Your task to perform on an android device: Show the shopping cart on amazon.com. Add "sony triple a" to the cart on amazon.com Image 0: 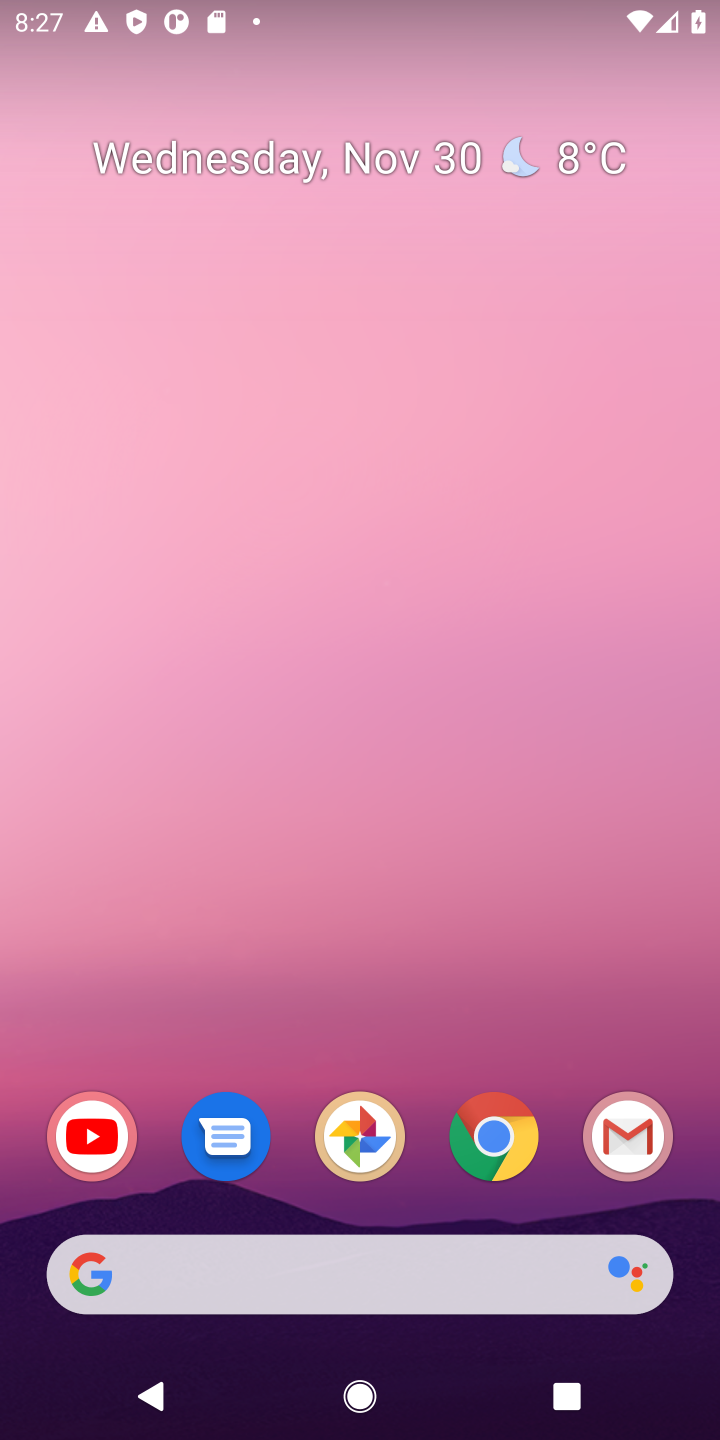
Step 0: click (505, 1156)
Your task to perform on an android device: Show the shopping cart on amazon.com. Add "sony triple a" to the cart on amazon.com Image 1: 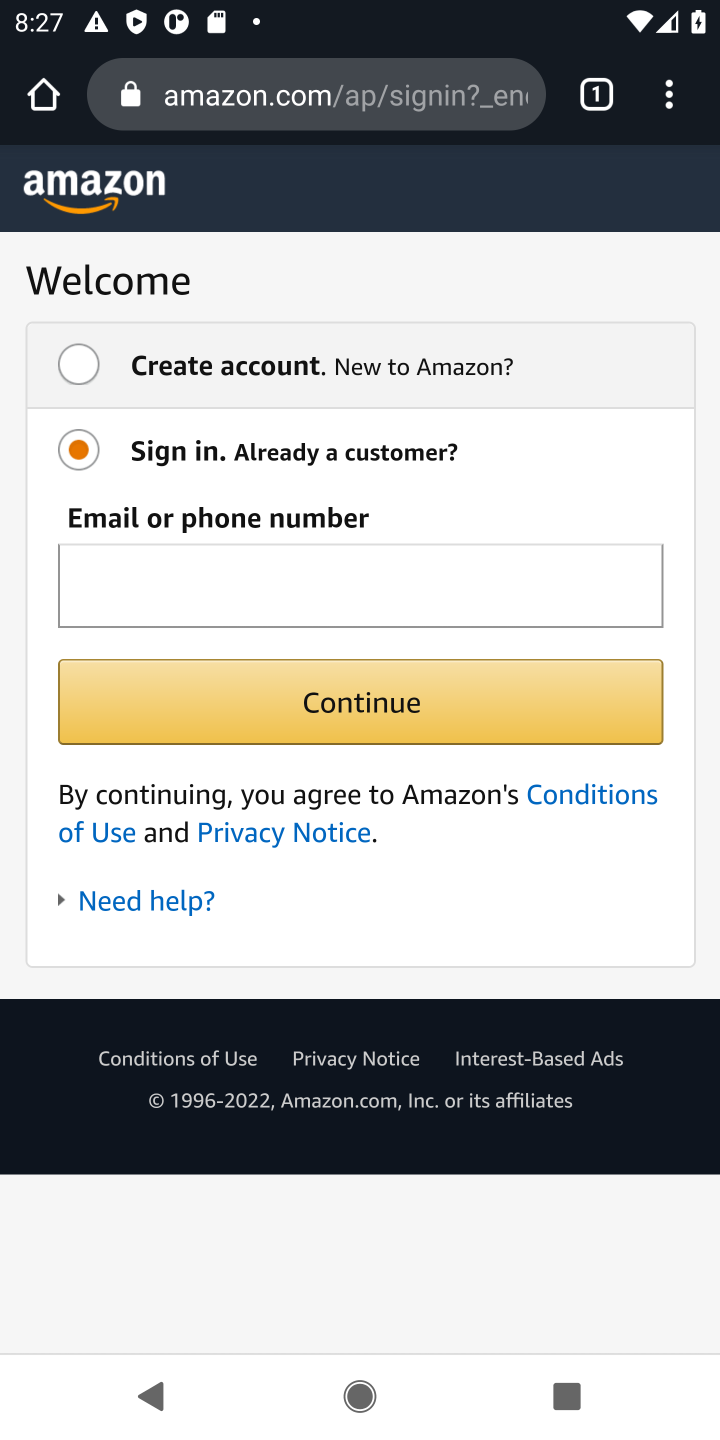
Step 1: press back button
Your task to perform on an android device: Show the shopping cart on amazon.com. Add "sony triple a" to the cart on amazon.com Image 2: 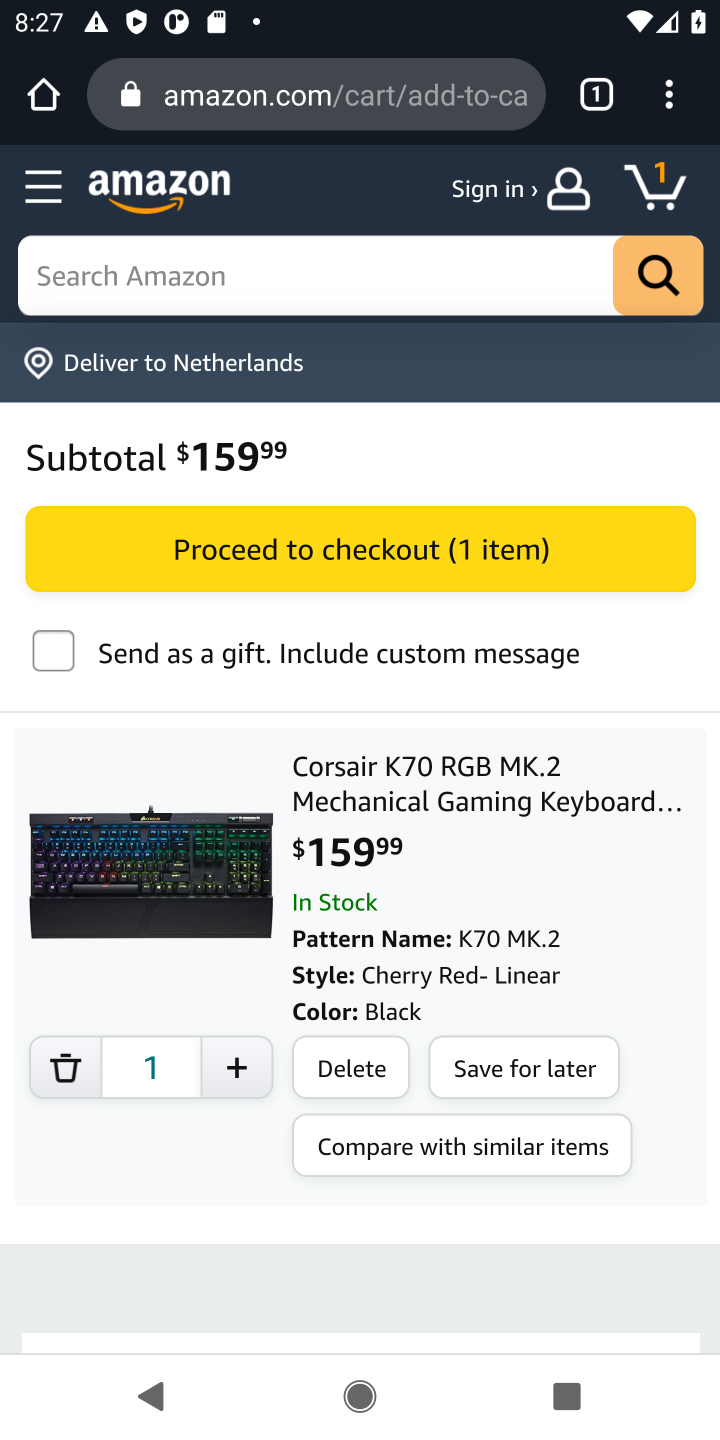
Step 2: drag from (644, 999) to (647, 591)
Your task to perform on an android device: Show the shopping cart on amazon.com. Add "sony triple a" to the cart on amazon.com Image 3: 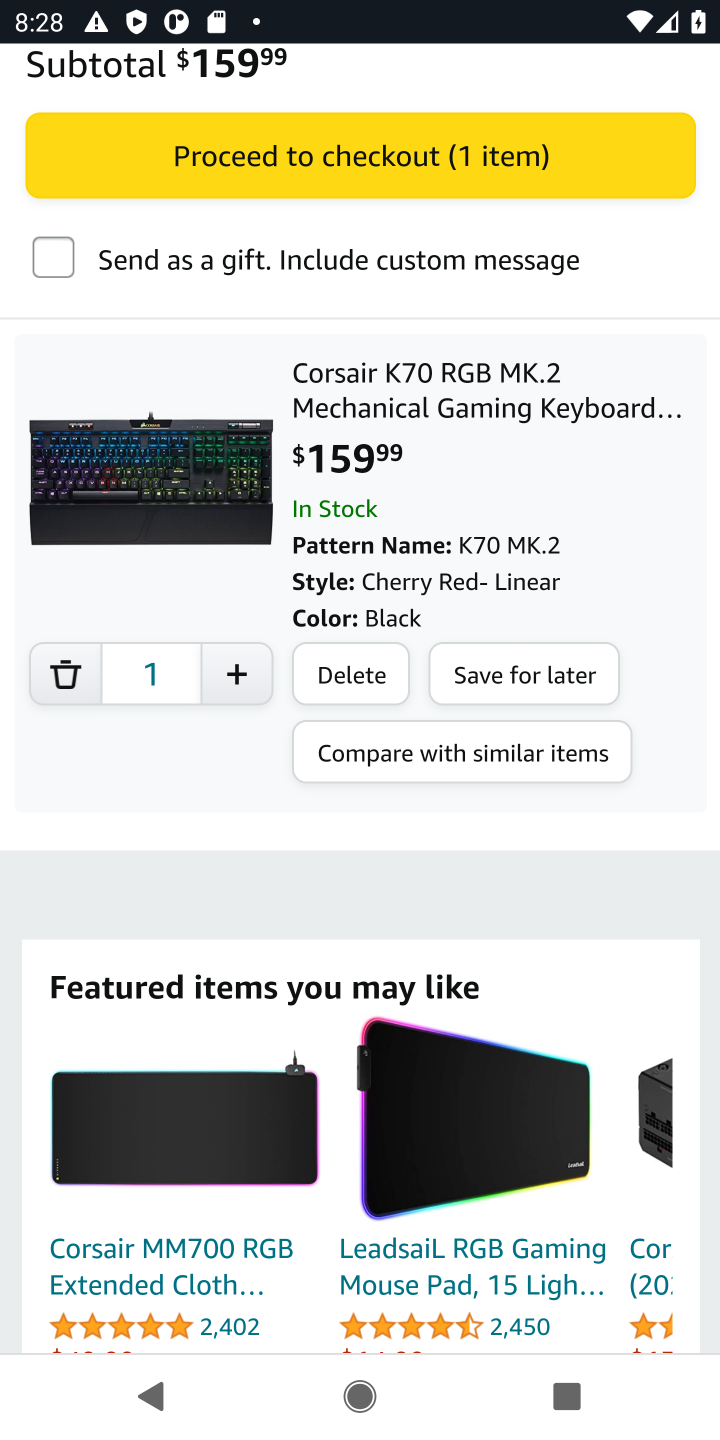
Step 3: drag from (522, 322) to (496, 791)
Your task to perform on an android device: Show the shopping cart on amazon.com. Add "sony triple a" to the cart on amazon.com Image 4: 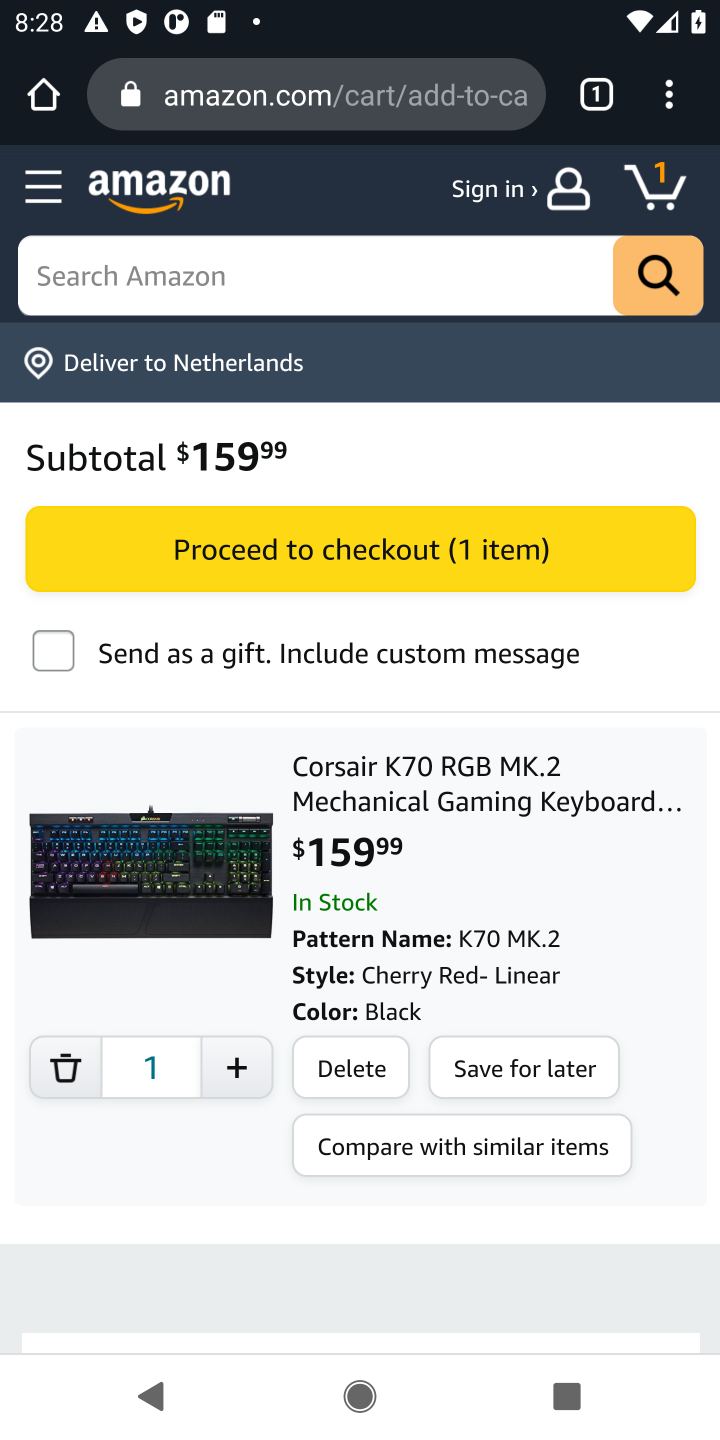
Step 4: click (124, 288)
Your task to perform on an android device: Show the shopping cart on amazon.com. Add "sony triple a" to the cart on amazon.com Image 5: 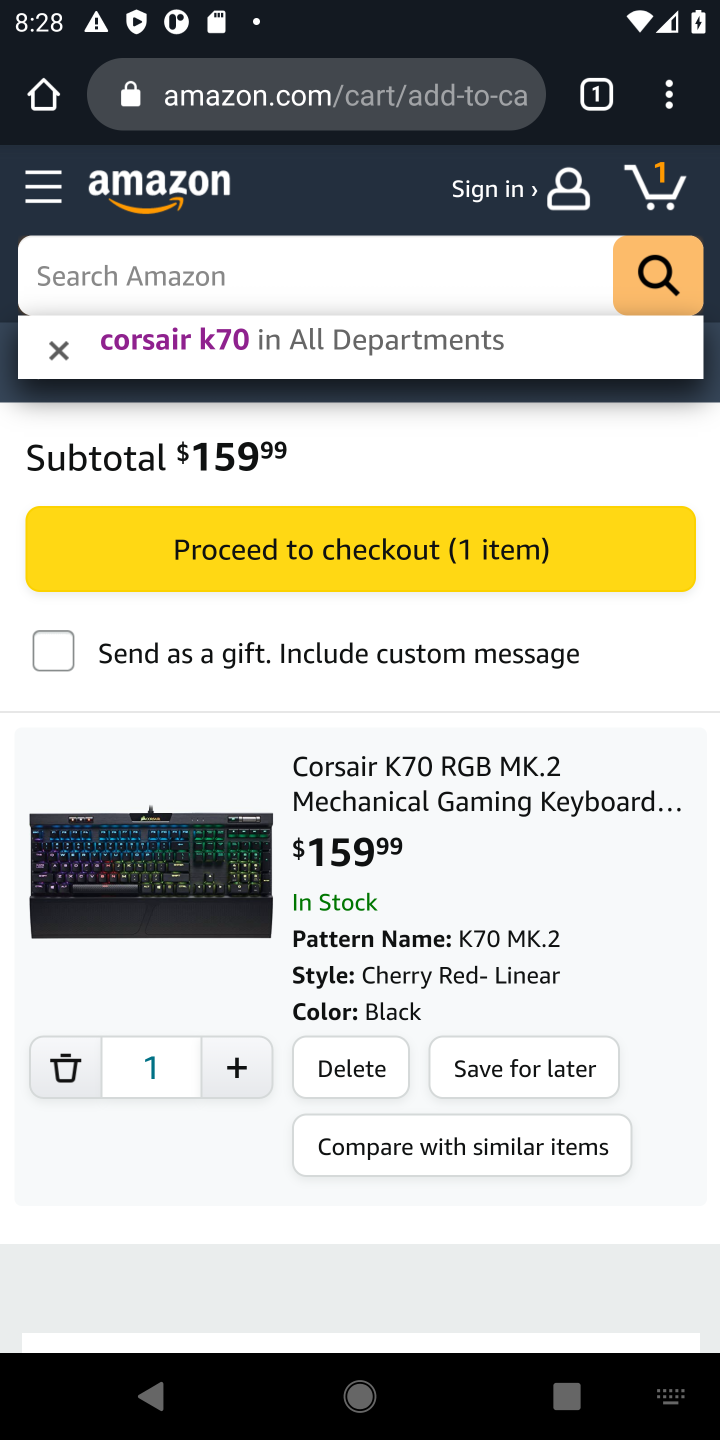
Step 5: type "sony triple a"
Your task to perform on an android device: Show the shopping cart on amazon.com. Add "sony triple a" to the cart on amazon.com Image 6: 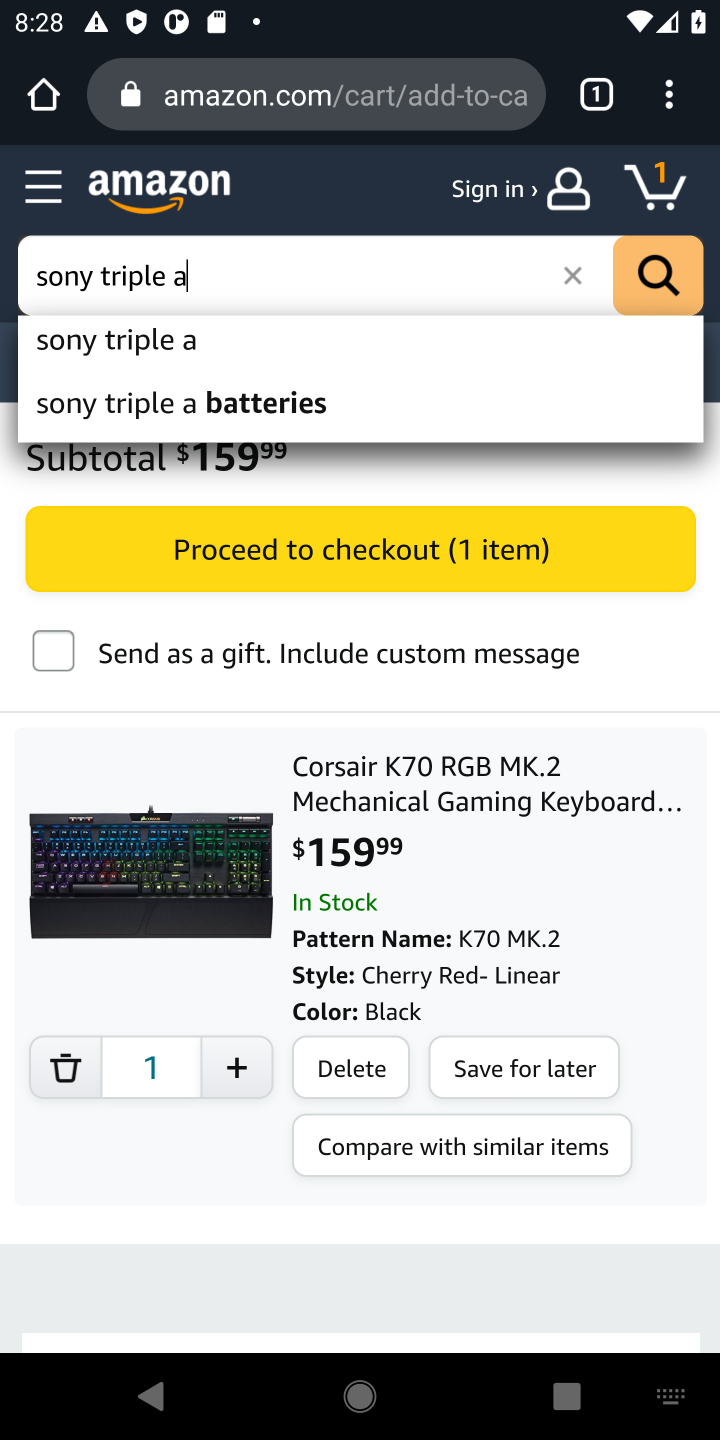
Step 6: click (64, 350)
Your task to perform on an android device: Show the shopping cart on amazon.com. Add "sony triple a" to the cart on amazon.com Image 7: 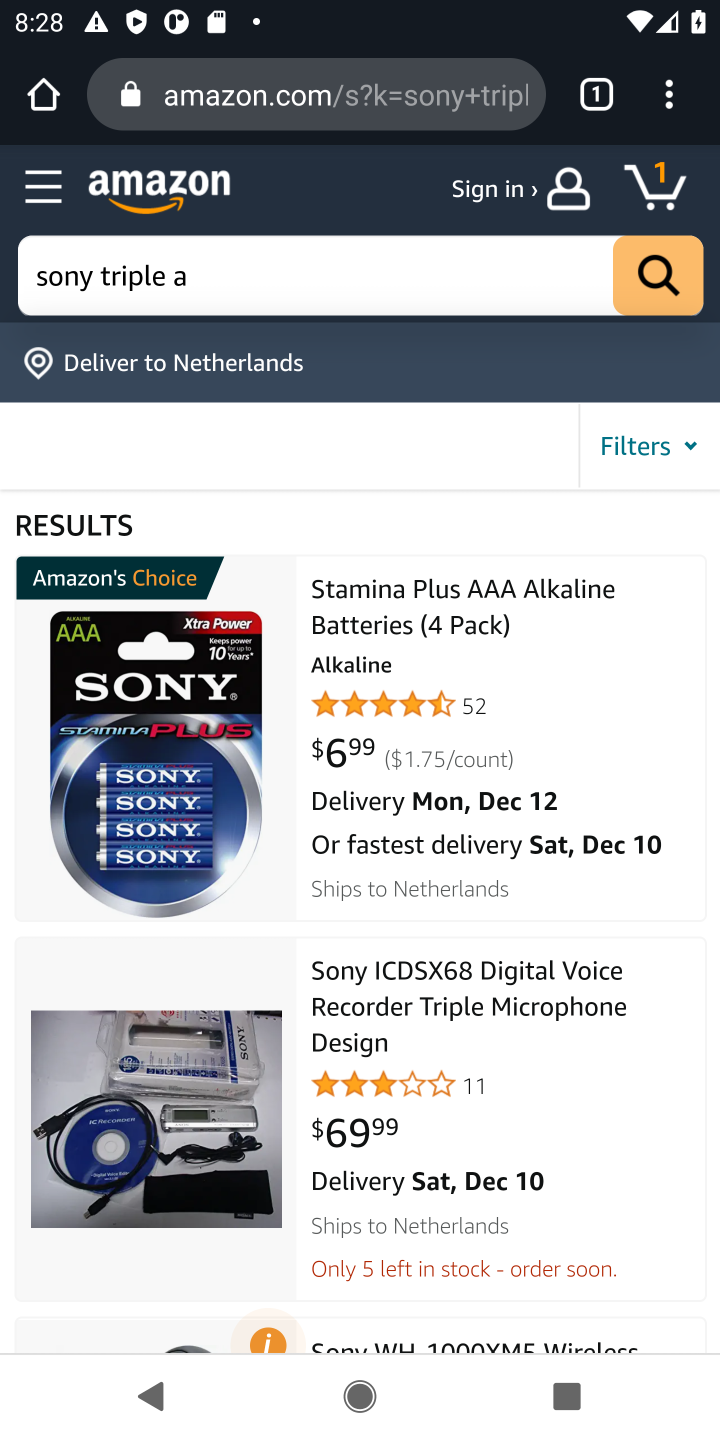
Step 7: drag from (385, 851) to (400, 601)
Your task to perform on an android device: Show the shopping cart on amazon.com. Add "sony triple a" to the cart on amazon.com Image 8: 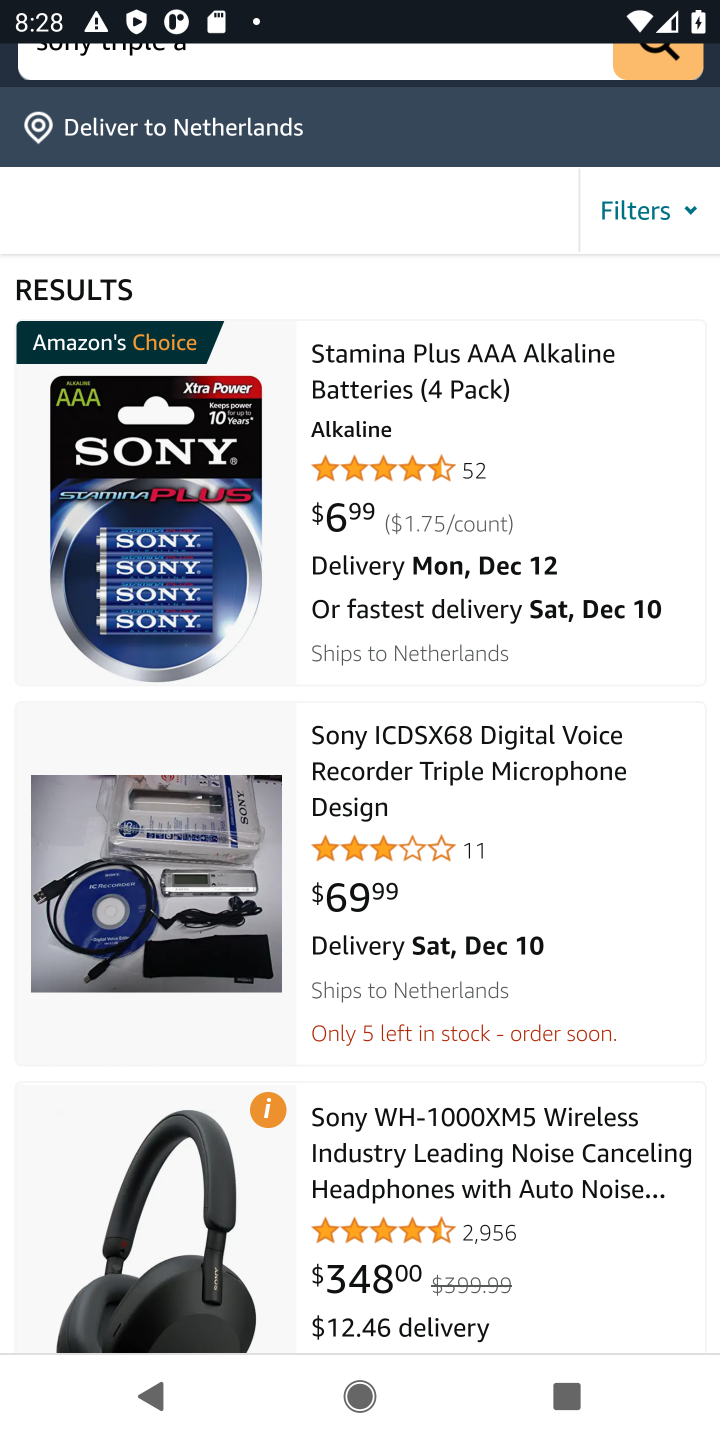
Step 8: click (381, 418)
Your task to perform on an android device: Show the shopping cart on amazon.com. Add "sony triple a" to the cart on amazon.com Image 9: 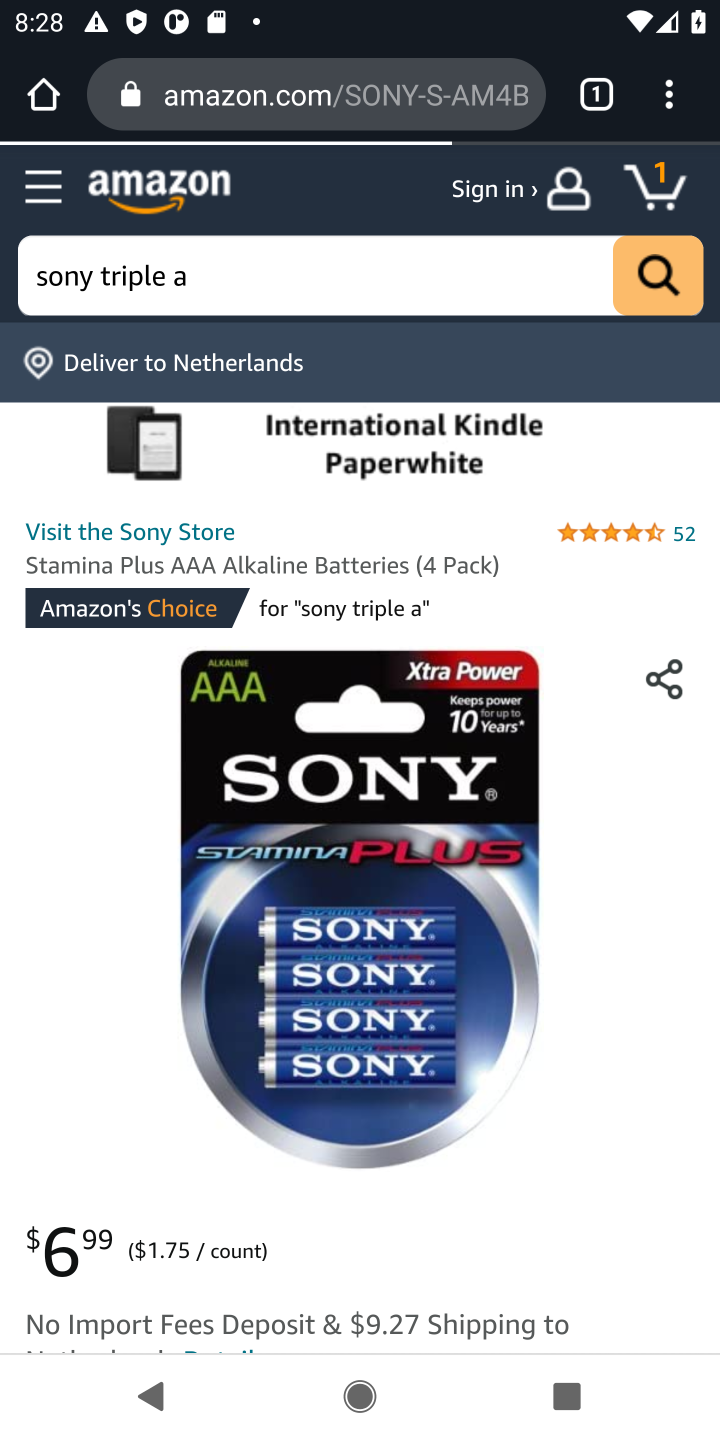
Step 9: drag from (417, 1013) to (350, 231)
Your task to perform on an android device: Show the shopping cart on amazon.com. Add "sony triple a" to the cart on amazon.com Image 10: 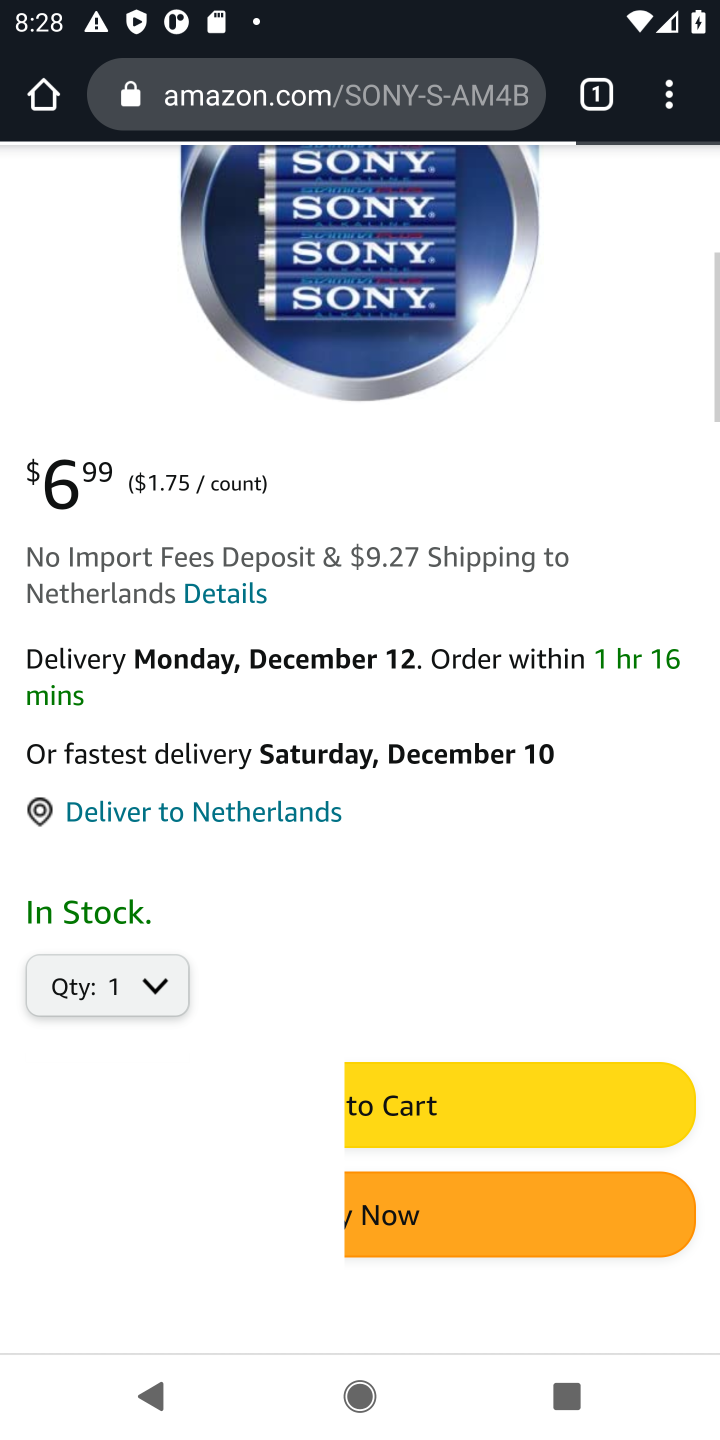
Step 10: drag from (298, 887) to (298, 385)
Your task to perform on an android device: Show the shopping cart on amazon.com. Add "sony triple a" to the cart on amazon.com Image 11: 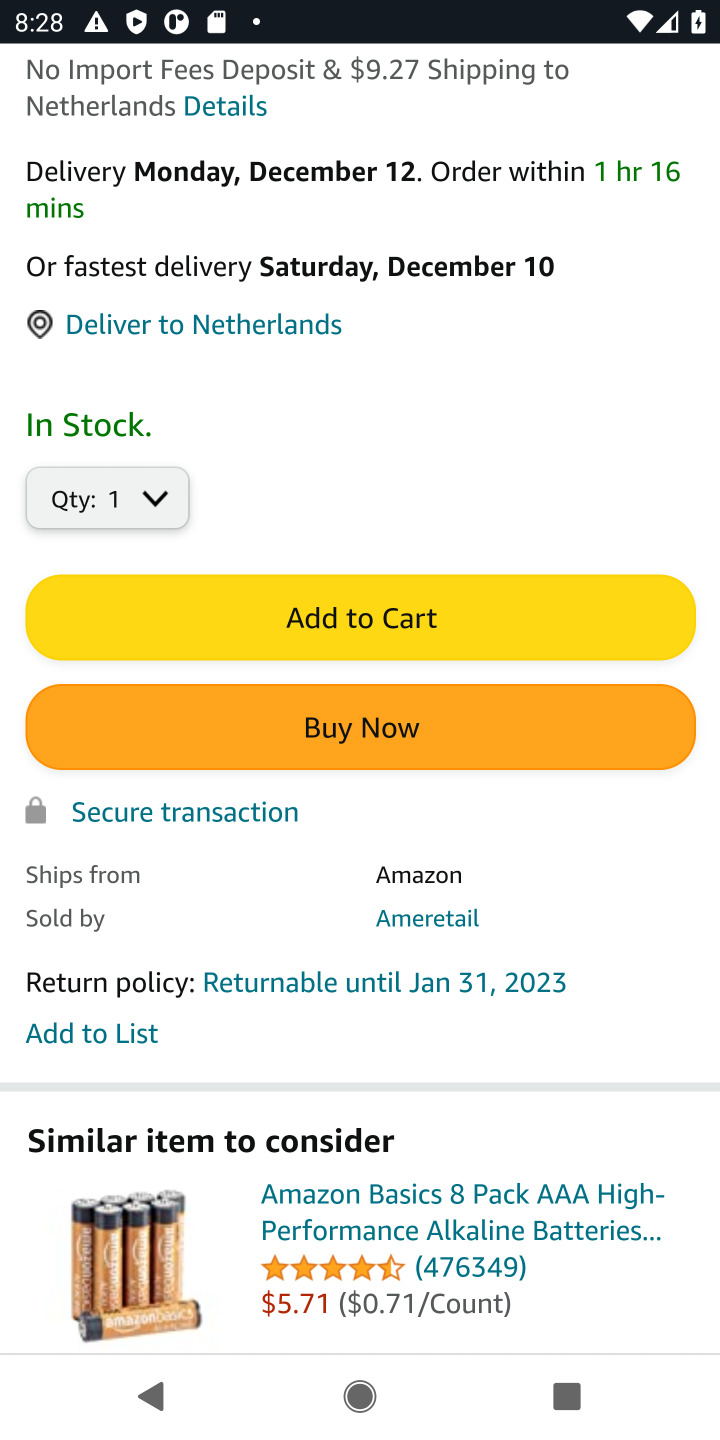
Step 11: click (331, 629)
Your task to perform on an android device: Show the shopping cart on amazon.com. Add "sony triple a" to the cart on amazon.com Image 12: 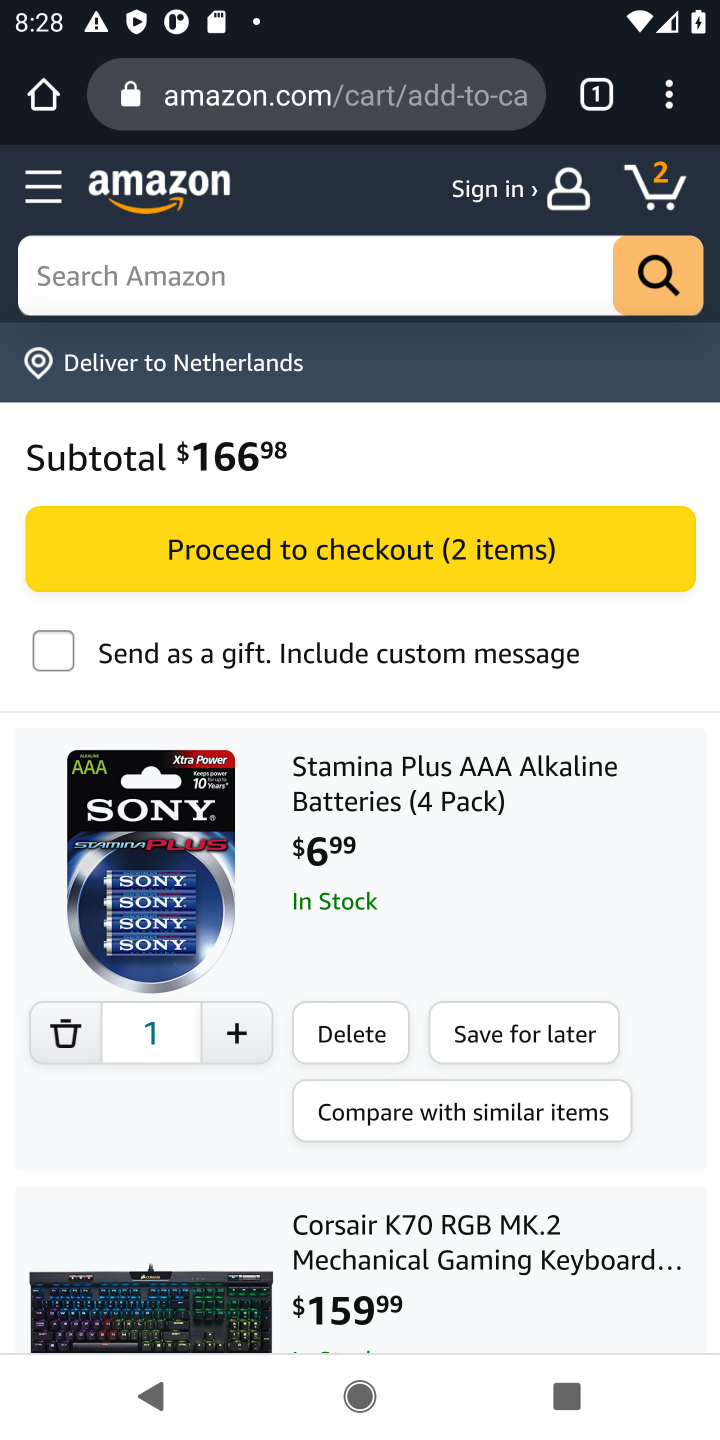
Step 12: task complete